Your task to perform on an android device: refresh tabs in the chrome app Image 0: 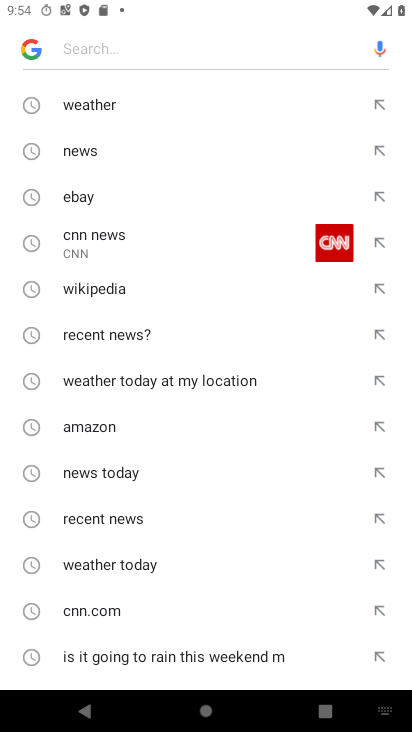
Step 0: press home button
Your task to perform on an android device: refresh tabs in the chrome app Image 1: 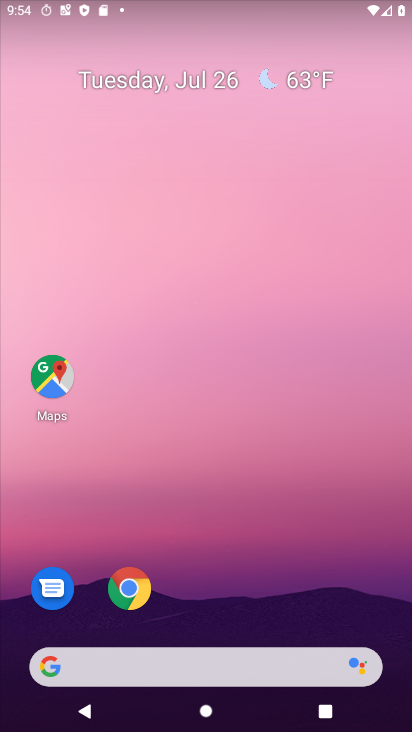
Step 1: click (139, 594)
Your task to perform on an android device: refresh tabs in the chrome app Image 2: 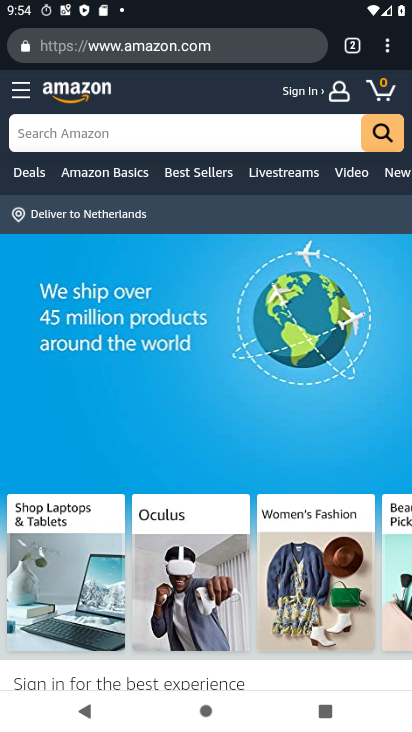
Step 2: click (389, 52)
Your task to perform on an android device: refresh tabs in the chrome app Image 3: 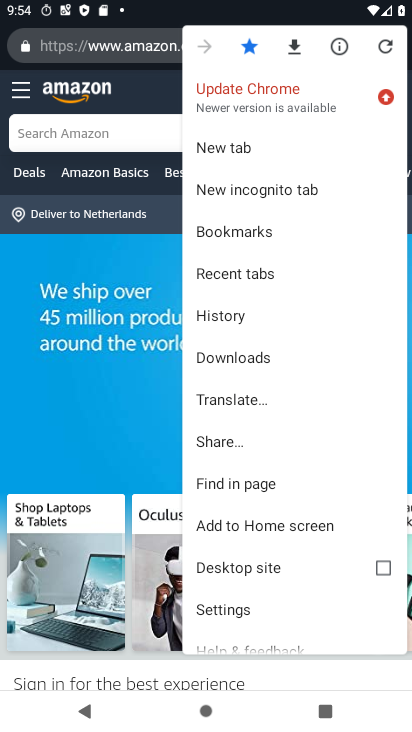
Step 3: click (387, 51)
Your task to perform on an android device: refresh tabs in the chrome app Image 4: 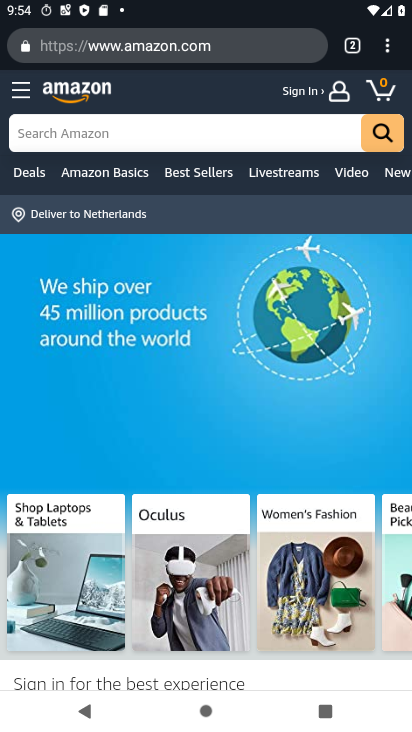
Step 4: task complete